Your task to perform on an android device: install app "Expedia: Hotels, Flights & Car" Image 0: 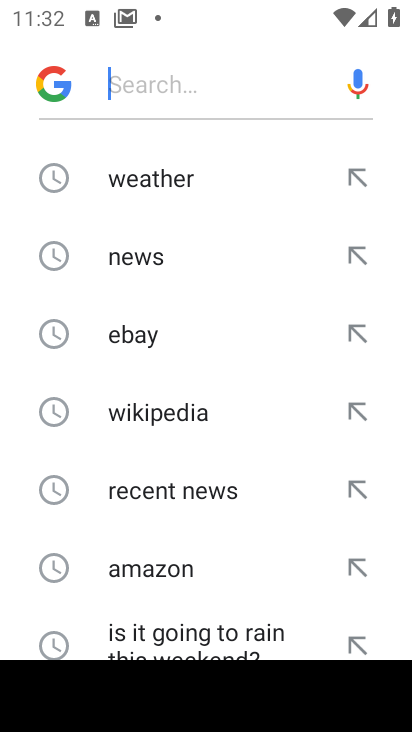
Step 0: press back button
Your task to perform on an android device: install app "Expedia: Hotels, Flights & Car" Image 1: 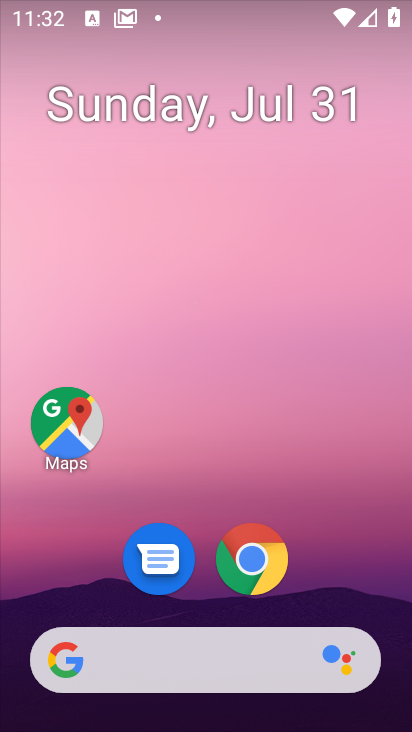
Step 1: drag from (73, 568) to (200, 36)
Your task to perform on an android device: install app "Expedia: Hotels, Flights & Car" Image 2: 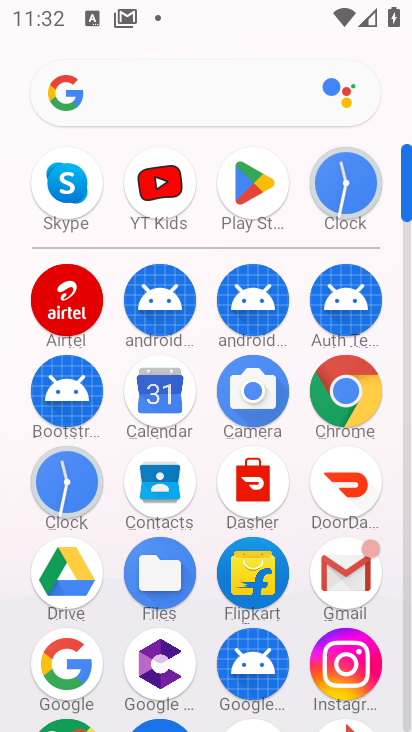
Step 2: click (260, 177)
Your task to perform on an android device: install app "Expedia: Hotels, Flights & Car" Image 3: 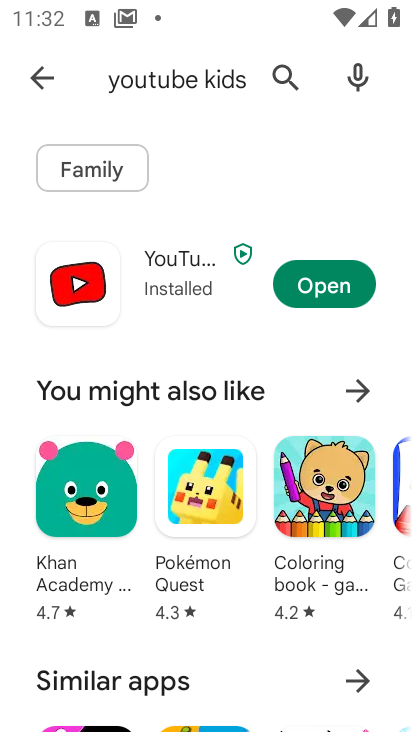
Step 3: click (42, 77)
Your task to perform on an android device: install app "Expedia: Hotels, Flights & Car" Image 4: 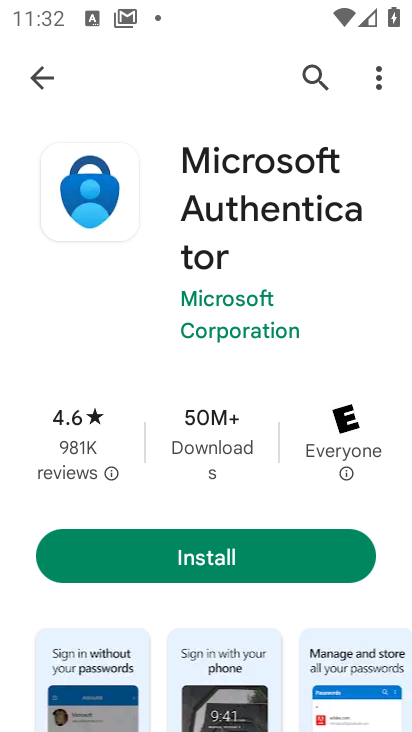
Step 4: click (308, 74)
Your task to perform on an android device: install app "Expedia: Hotels, Flights & Car" Image 5: 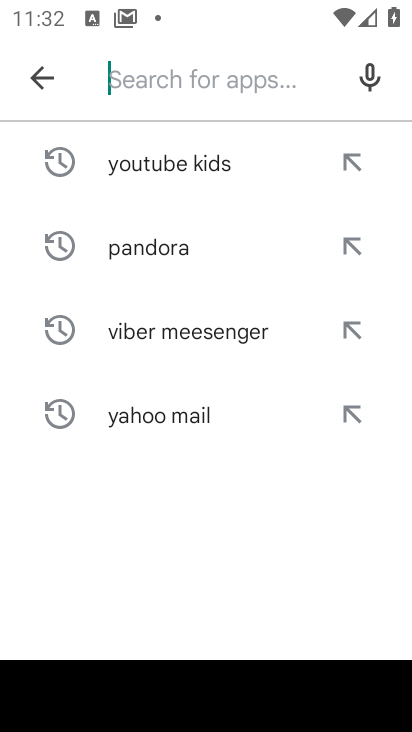
Step 5: click (173, 76)
Your task to perform on an android device: install app "Expedia: Hotels, Flights & Car" Image 6: 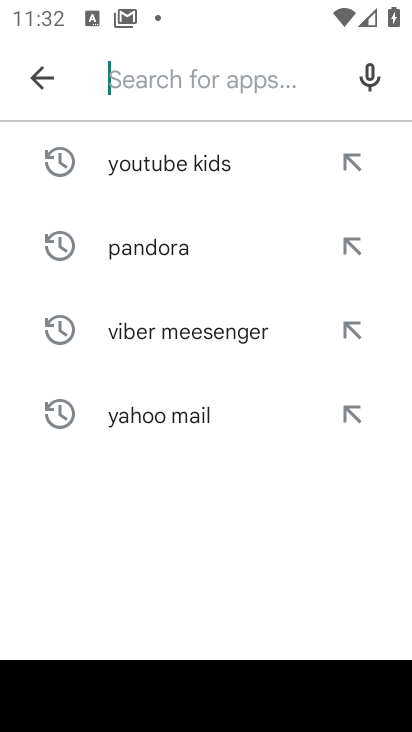
Step 6: type "expedia"
Your task to perform on an android device: install app "Expedia: Hotels, Flights & Car" Image 7: 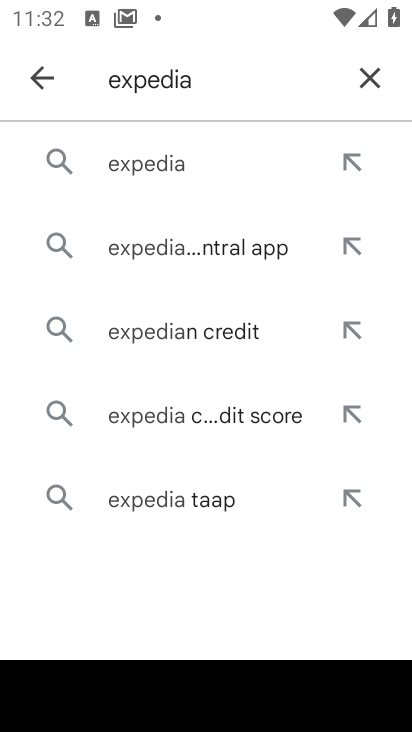
Step 7: click (144, 156)
Your task to perform on an android device: install app "Expedia: Hotels, Flights & Car" Image 8: 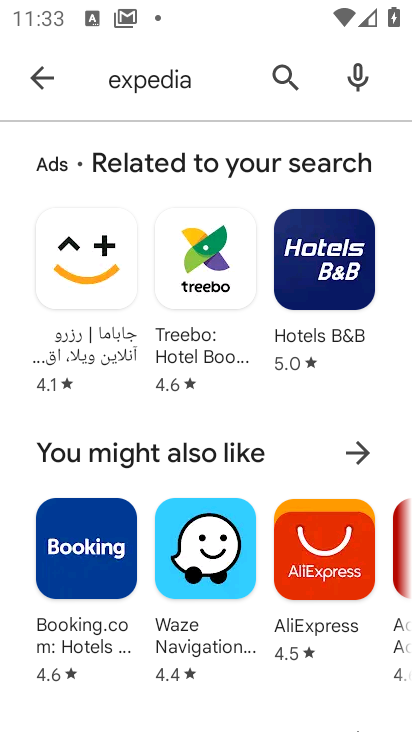
Step 8: task complete